Your task to perform on an android device: move a message to another label in the gmail app Image 0: 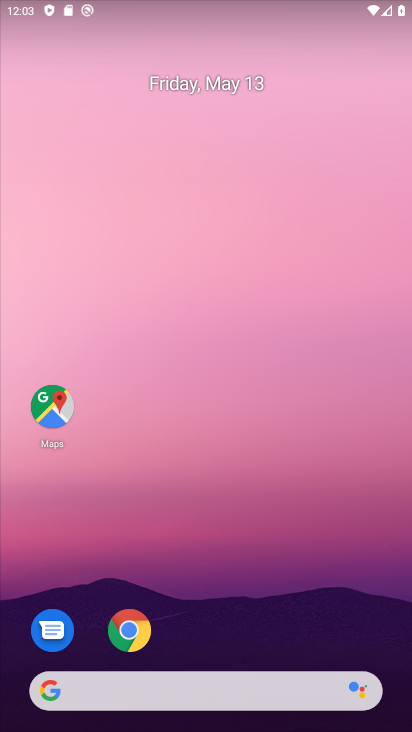
Step 0: drag from (302, 523) to (315, 186)
Your task to perform on an android device: move a message to another label in the gmail app Image 1: 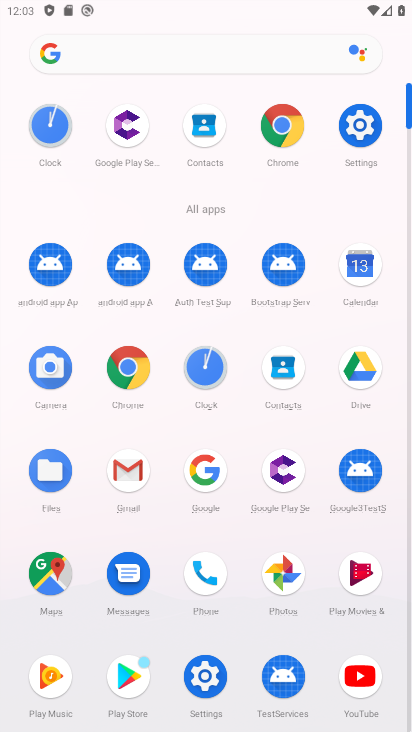
Step 1: click (123, 459)
Your task to perform on an android device: move a message to another label in the gmail app Image 2: 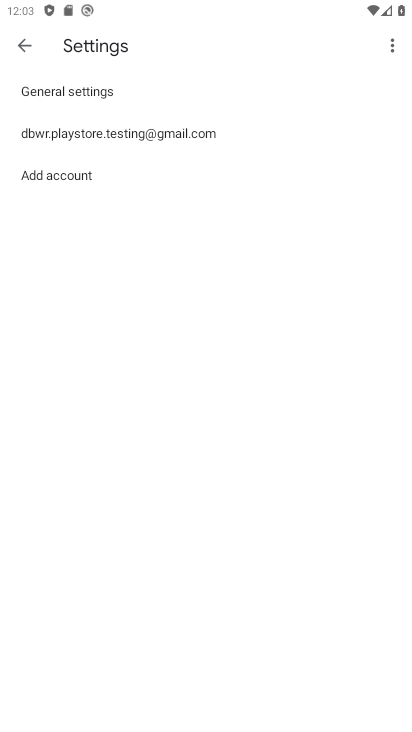
Step 2: click (194, 131)
Your task to perform on an android device: move a message to another label in the gmail app Image 3: 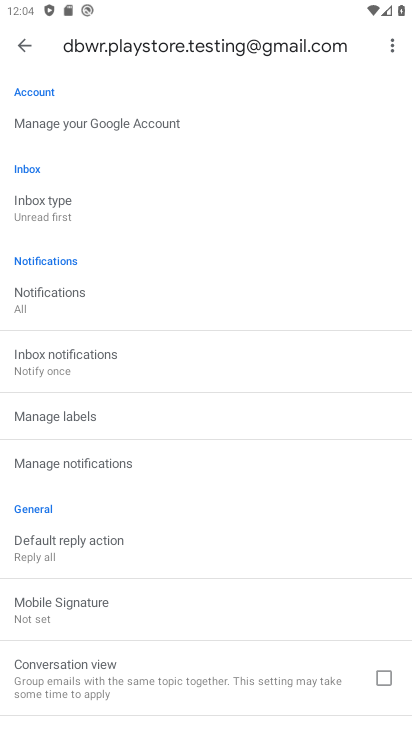
Step 3: click (26, 32)
Your task to perform on an android device: move a message to another label in the gmail app Image 4: 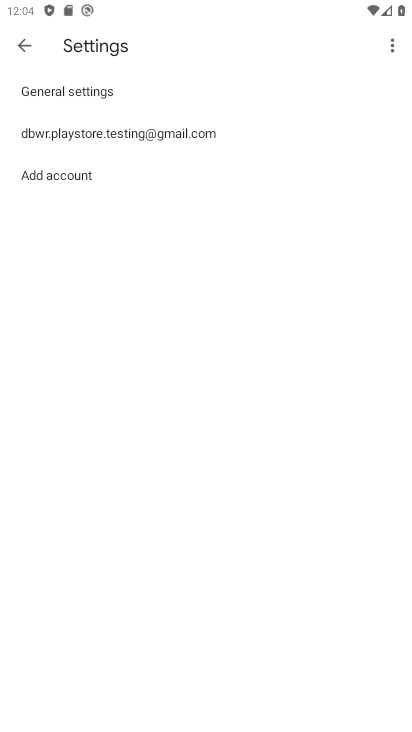
Step 4: click (24, 45)
Your task to perform on an android device: move a message to another label in the gmail app Image 5: 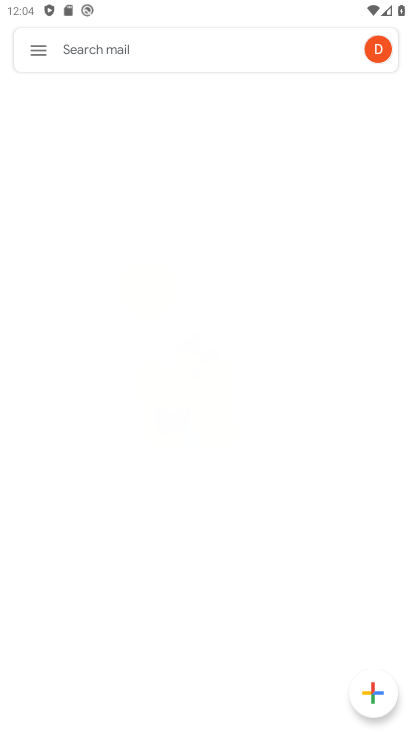
Step 5: click (35, 41)
Your task to perform on an android device: move a message to another label in the gmail app Image 6: 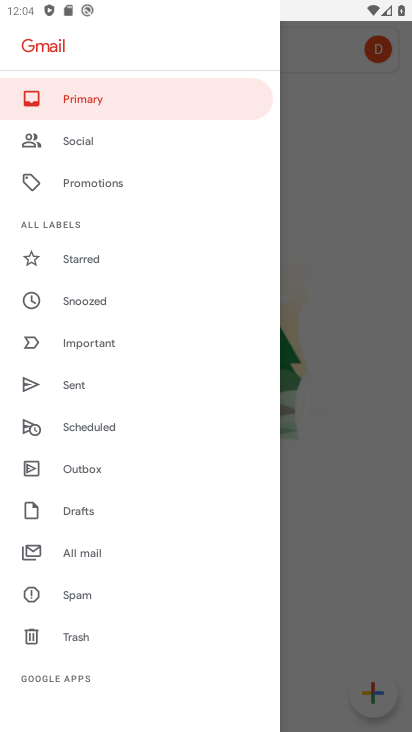
Step 6: click (104, 546)
Your task to perform on an android device: move a message to another label in the gmail app Image 7: 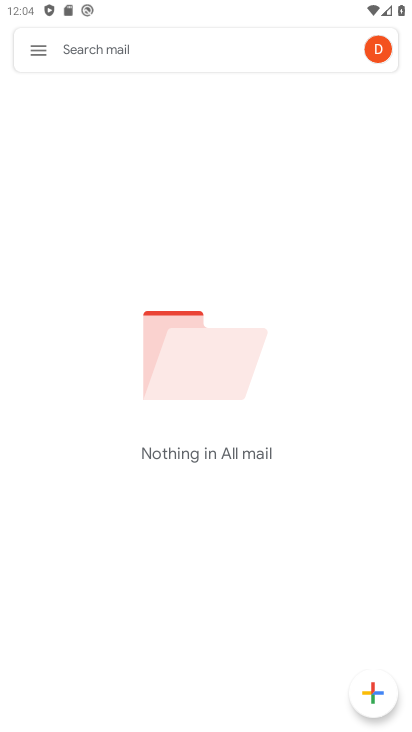
Step 7: task complete